Your task to perform on an android device: Turn on the flashlight Image 0: 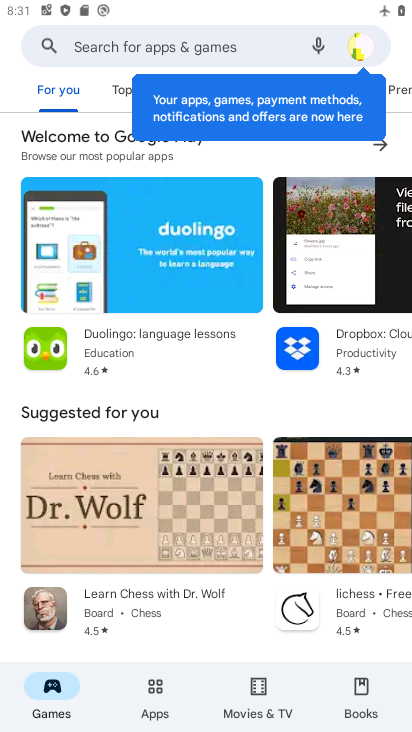
Step 0: press home button
Your task to perform on an android device: Turn on the flashlight Image 1: 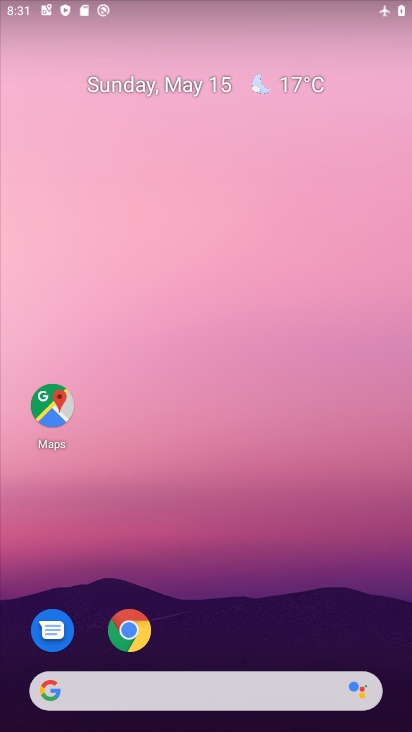
Step 1: drag from (276, 577) to (244, 103)
Your task to perform on an android device: Turn on the flashlight Image 2: 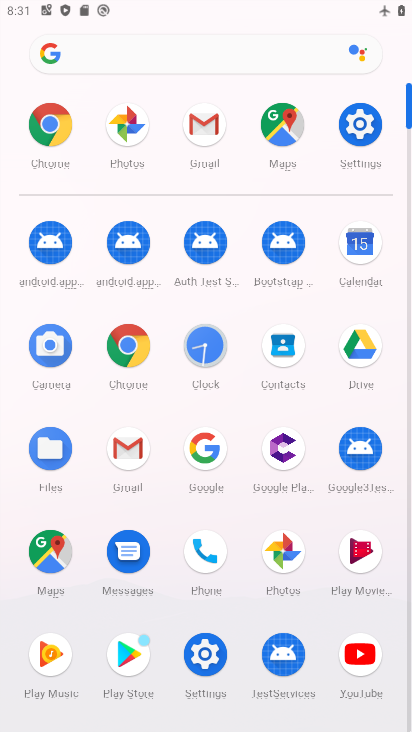
Step 2: click (196, 672)
Your task to perform on an android device: Turn on the flashlight Image 3: 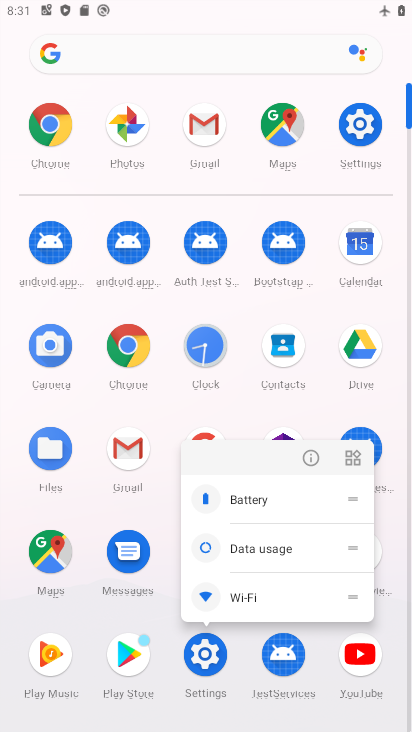
Step 3: click (205, 657)
Your task to perform on an android device: Turn on the flashlight Image 4: 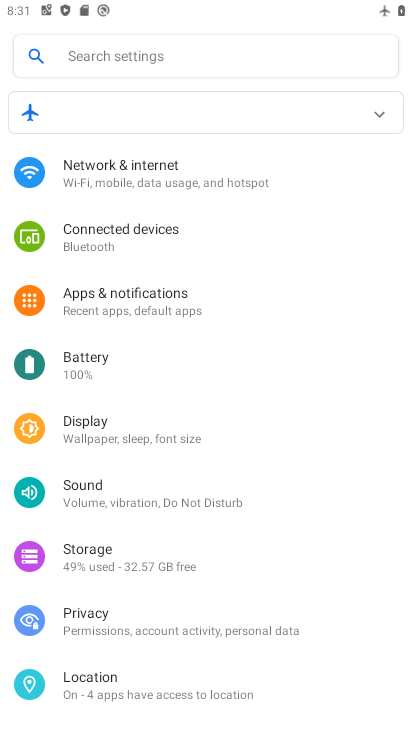
Step 4: task complete